Your task to perform on an android device: change the clock display to analog Image 0: 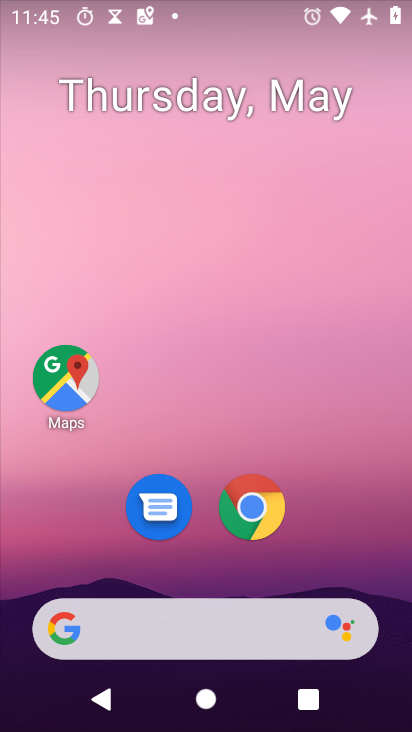
Step 0: drag from (342, 546) to (321, 60)
Your task to perform on an android device: change the clock display to analog Image 1: 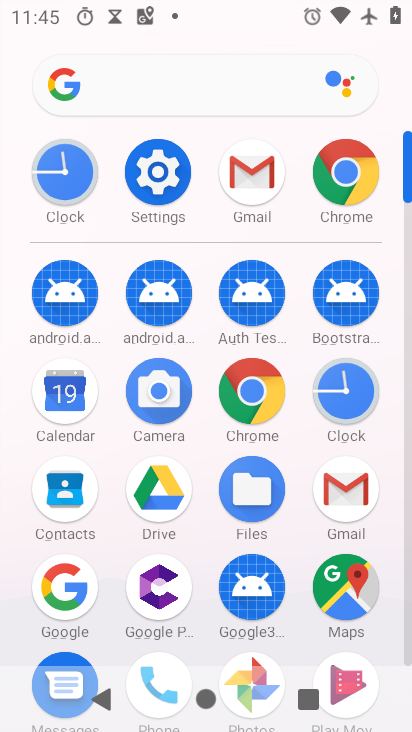
Step 1: drag from (16, 532) to (14, 214)
Your task to perform on an android device: change the clock display to analog Image 2: 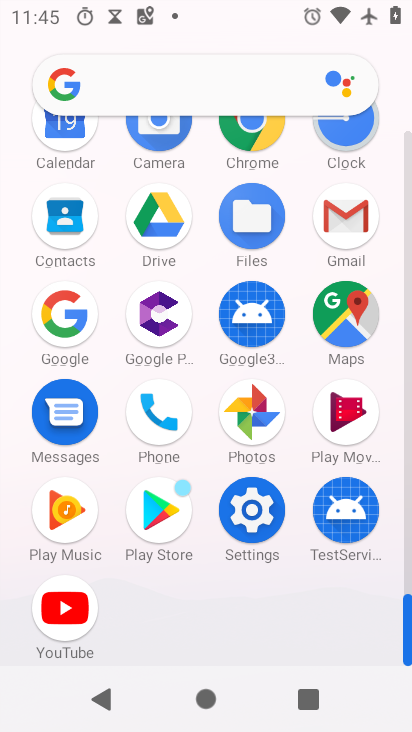
Step 2: drag from (18, 228) to (0, 475)
Your task to perform on an android device: change the clock display to analog Image 3: 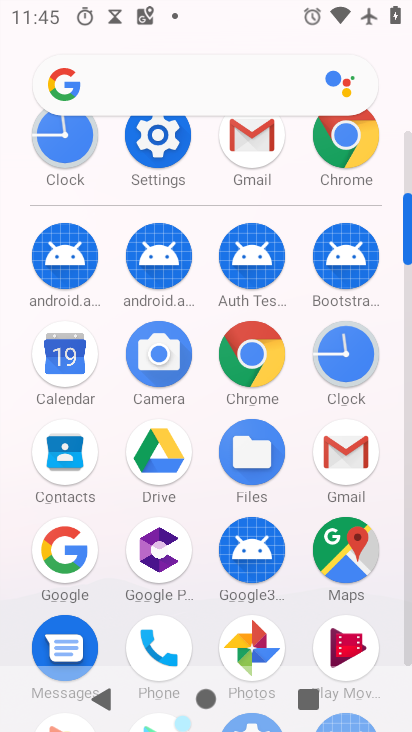
Step 3: click (348, 352)
Your task to perform on an android device: change the clock display to analog Image 4: 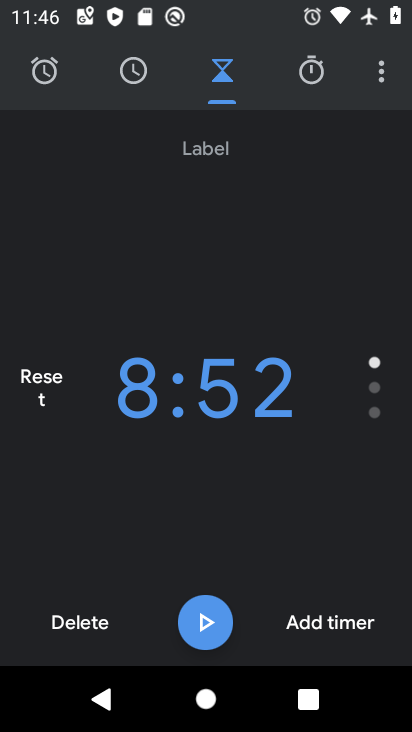
Step 4: drag from (387, 79) to (312, 139)
Your task to perform on an android device: change the clock display to analog Image 5: 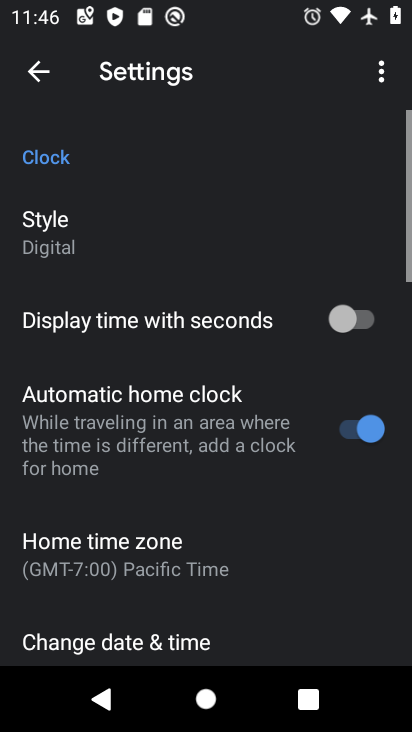
Step 5: click (118, 214)
Your task to perform on an android device: change the clock display to analog Image 6: 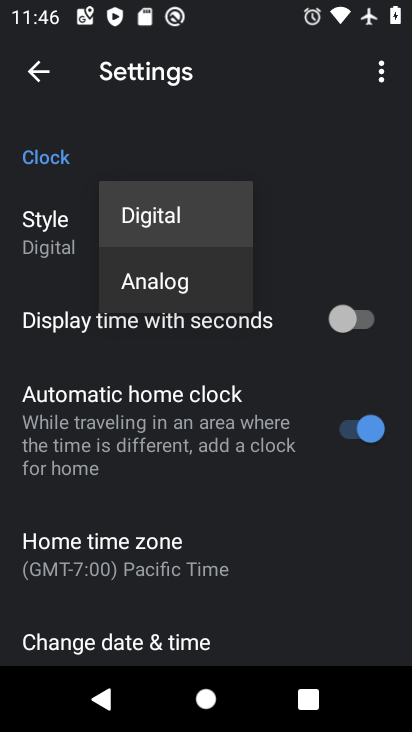
Step 6: click (126, 269)
Your task to perform on an android device: change the clock display to analog Image 7: 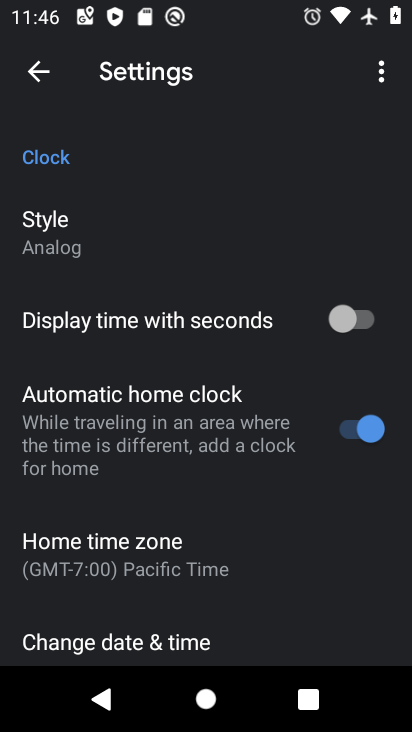
Step 7: task complete